Your task to perform on an android device: turn off picture-in-picture Image 0: 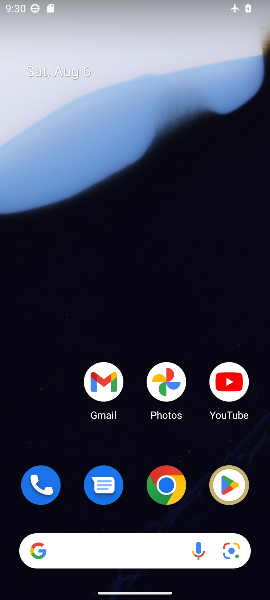
Step 0: drag from (201, 436) to (142, 3)
Your task to perform on an android device: turn off picture-in-picture Image 1: 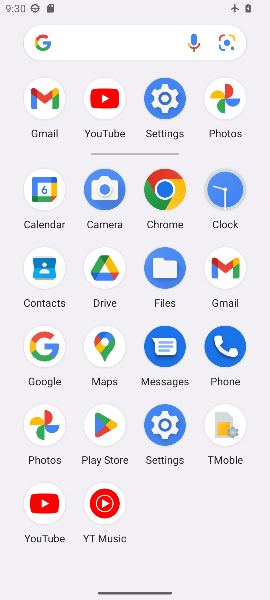
Step 1: click (159, 186)
Your task to perform on an android device: turn off picture-in-picture Image 2: 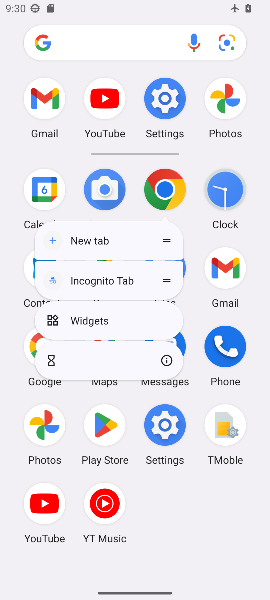
Step 2: click (166, 360)
Your task to perform on an android device: turn off picture-in-picture Image 3: 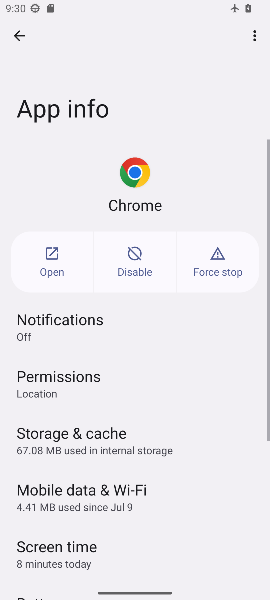
Step 3: drag from (194, 435) to (134, 3)
Your task to perform on an android device: turn off picture-in-picture Image 4: 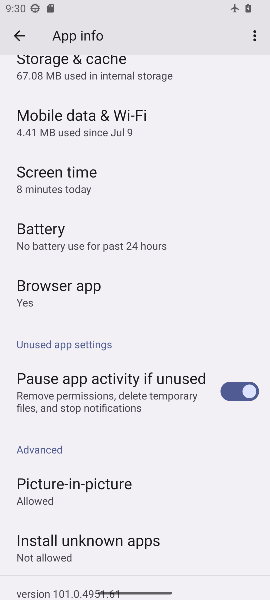
Step 4: click (109, 491)
Your task to perform on an android device: turn off picture-in-picture Image 5: 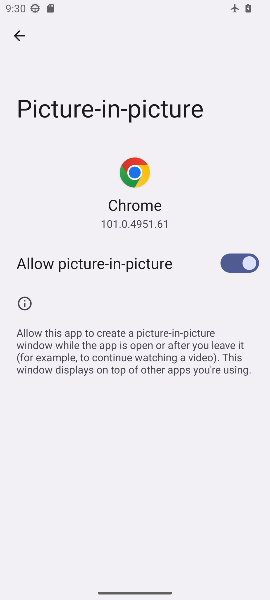
Step 5: click (228, 258)
Your task to perform on an android device: turn off picture-in-picture Image 6: 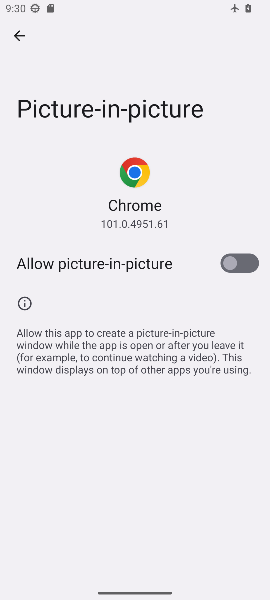
Step 6: task complete